Your task to perform on an android device: Search for corsair k70 on bestbuy.com, select the first entry, and add it to the cart. Image 0: 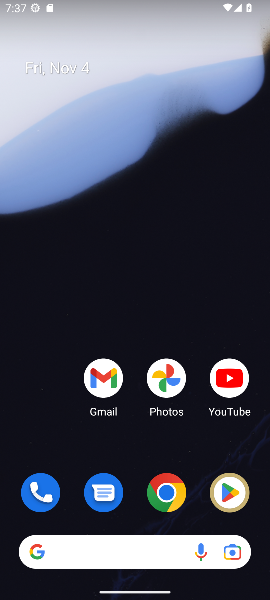
Step 0: drag from (130, 422) to (146, 70)
Your task to perform on an android device: Search for corsair k70 on bestbuy.com, select the first entry, and add it to the cart. Image 1: 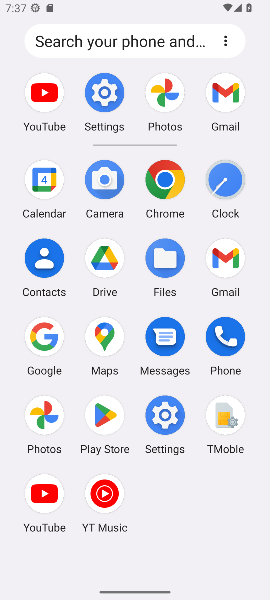
Step 1: click (167, 178)
Your task to perform on an android device: Search for corsair k70 on bestbuy.com, select the first entry, and add it to the cart. Image 2: 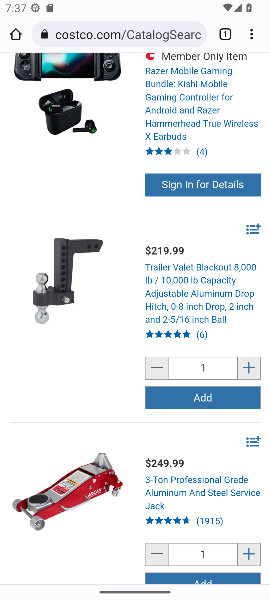
Step 2: click (181, 35)
Your task to perform on an android device: Search for corsair k70 on bestbuy.com, select the first entry, and add it to the cart. Image 3: 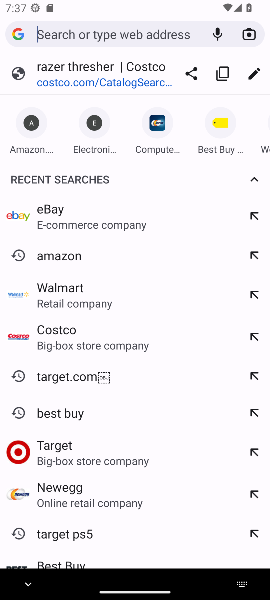
Step 3: type "bestbuy.com"
Your task to perform on an android device: Search for corsair k70 on bestbuy.com, select the first entry, and add it to the cart. Image 4: 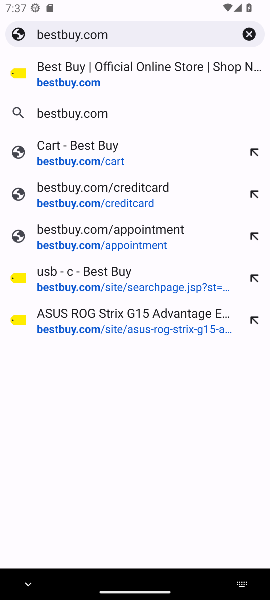
Step 4: press enter
Your task to perform on an android device: Search for corsair k70 on bestbuy.com, select the first entry, and add it to the cart. Image 5: 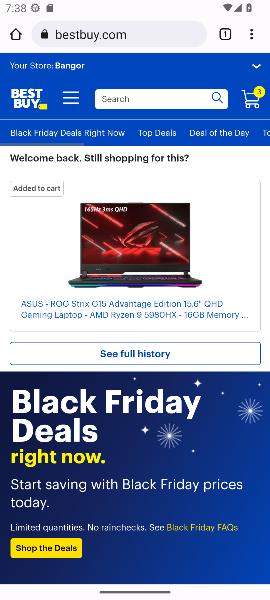
Step 5: click (196, 95)
Your task to perform on an android device: Search for corsair k70 on bestbuy.com, select the first entry, and add it to the cart. Image 6: 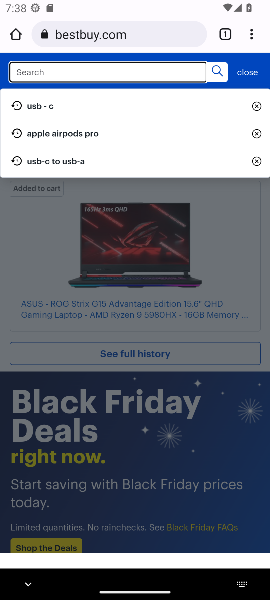
Step 6: type "corsair k70"
Your task to perform on an android device: Search for corsair k70 on bestbuy.com, select the first entry, and add it to the cart. Image 7: 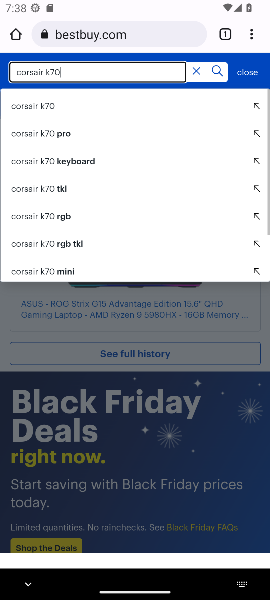
Step 7: press enter
Your task to perform on an android device: Search for corsair k70 on bestbuy.com, select the first entry, and add it to the cart. Image 8: 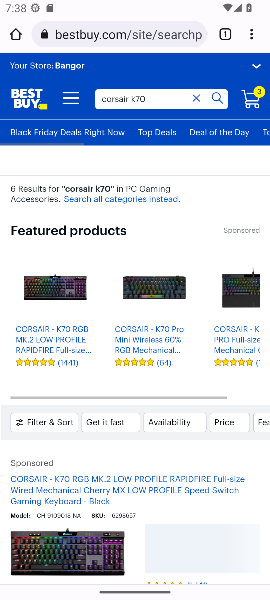
Step 8: drag from (198, 492) to (189, 218)
Your task to perform on an android device: Search for corsair k70 on bestbuy.com, select the first entry, and add it to the cart. Image 9: 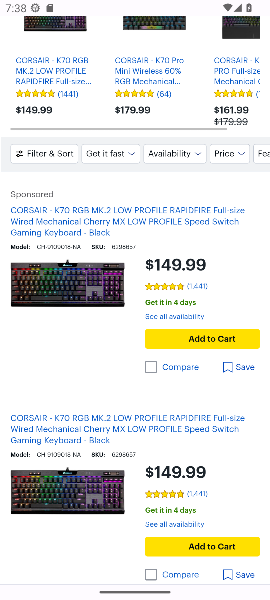
Step 9: drag from (173, 170) to (214, 151)
Your task to perform on an android device: Search for corsair k70 on bestbuy.com, select the first entry, and add it to the cart. Image 10: 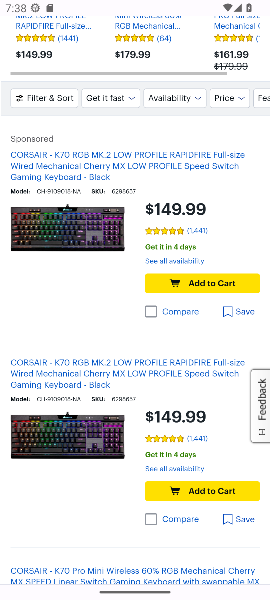
Step 10: click (193, 490)
Your task to perform on an android device: Search for corsair k70 on bestbuy.com, select the first entry, and add it to the cart. Image 11: 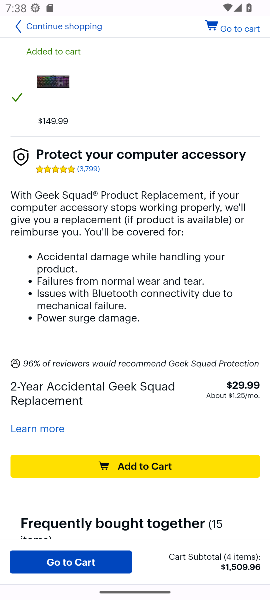
Step 11: task complete